Your task to perform on an android device: turn off javascript in the chrome app Image 0: 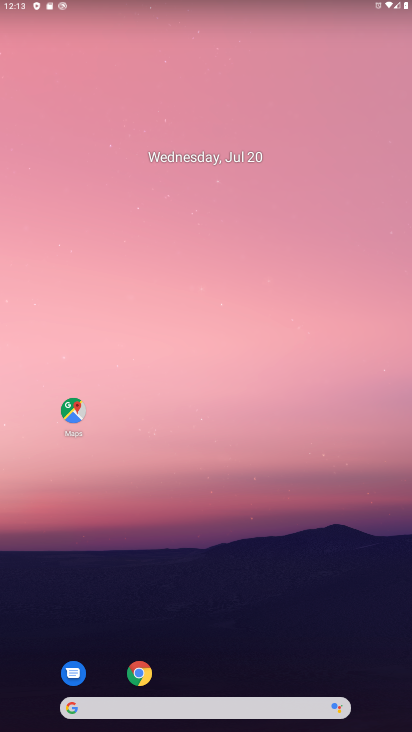
Step 0: click (137, 680)
Your task to perform on an android device: turn off javascript in the chrome app Image 1: 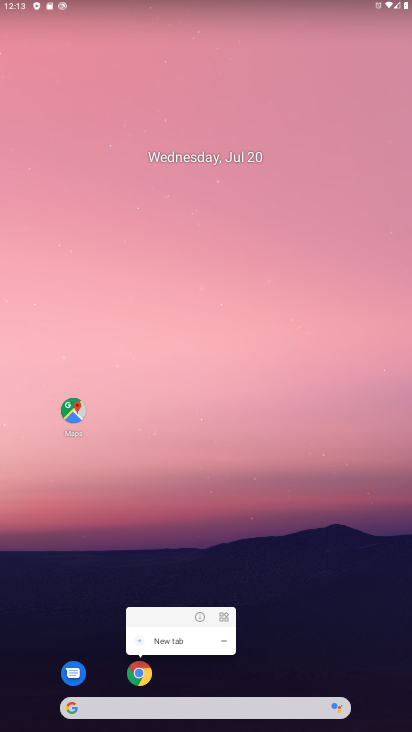
Step 1: click (147, 680)
Your task to perform on an android device: turn off javascript in the chrome app Image 2: 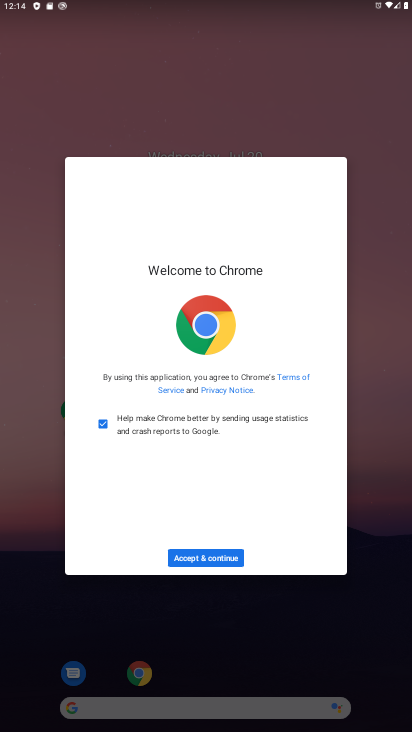
Step 2: click (189, 560)
Your task to perform on an android device: turn off javascript in the chrome app Image 3: 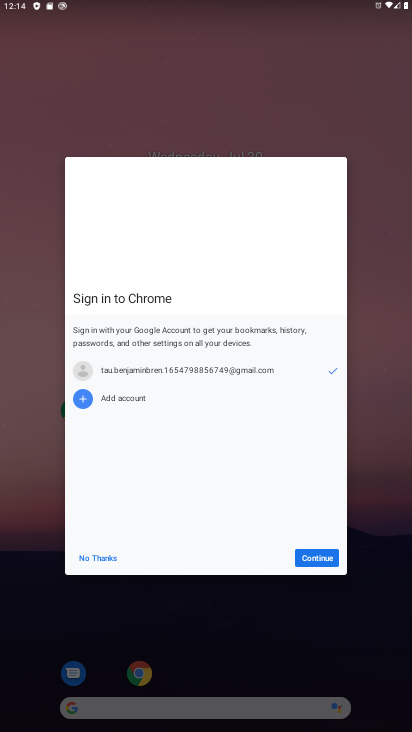
Step 3: click (321, 556)
Your task to perform on an android device: turn off javascript in the chrome app Image 4: 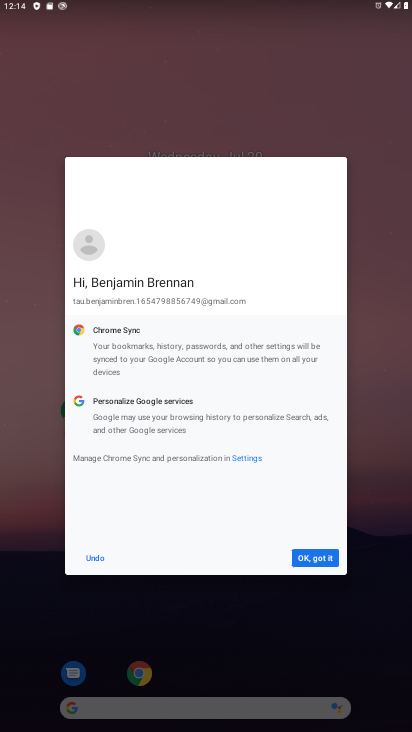
Step 4: click (328, 559)
Your task to perform on an android device: turn off javascript in the chrome app Image 5: 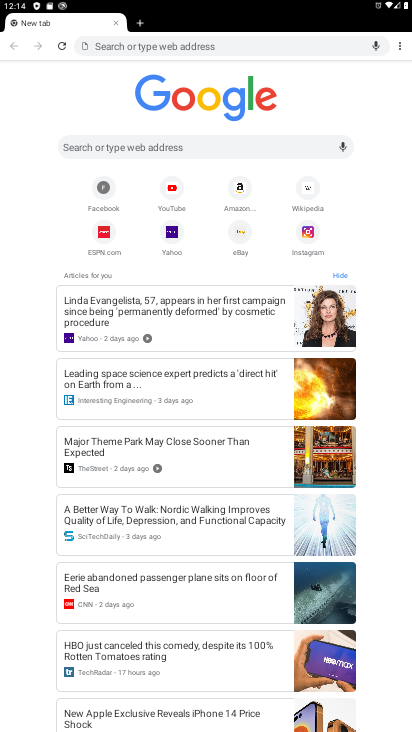
Step 5: drag from (398, 42) to (315, 212)
Your task to perform on an android device: turn off javascript in the chrome app Image 6: 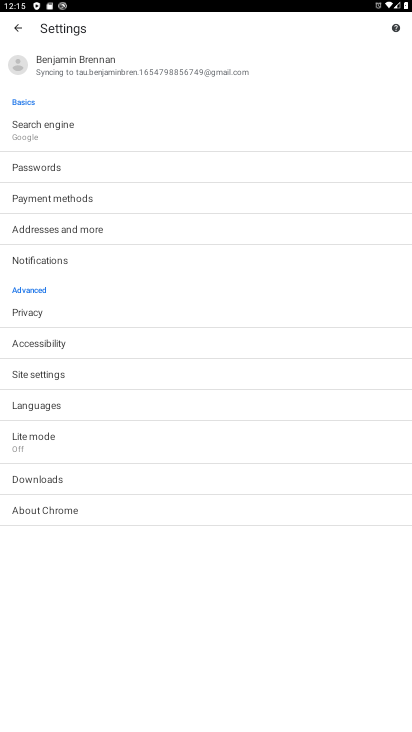
Step 6: click (93, 364)
Your task to perform on an android device: turn off javascript in the chrome app Image 7: 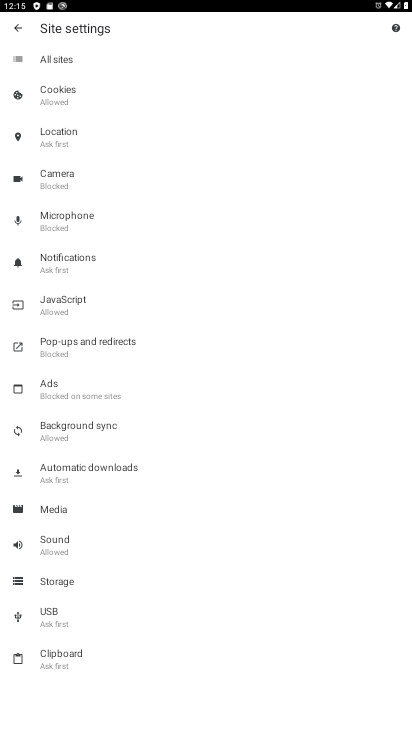
Step 7: click (92, 315)
Your task to perform on an android device: turn off javascript in the chrome app Image 8: 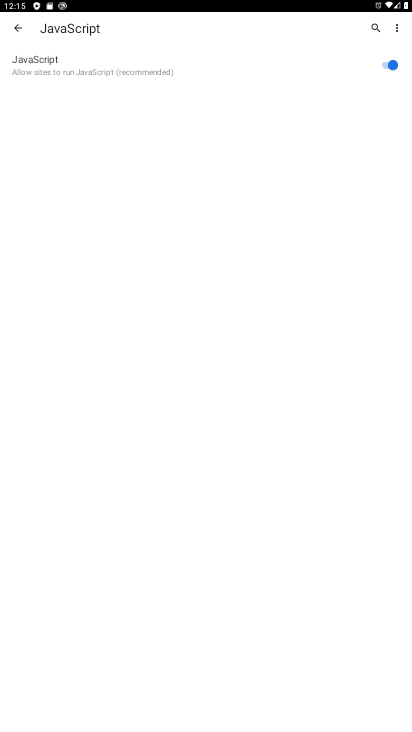
Step 8: click (385, 62)
Your task to perform on an android device: turn off javascript in the chrome app Image 9: 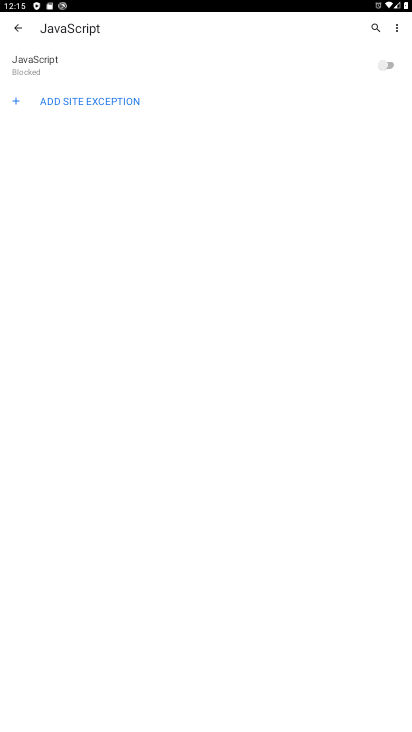
Step 9: task complete